Your task to perform on an android device: turn on improve location accuracy Image 0: 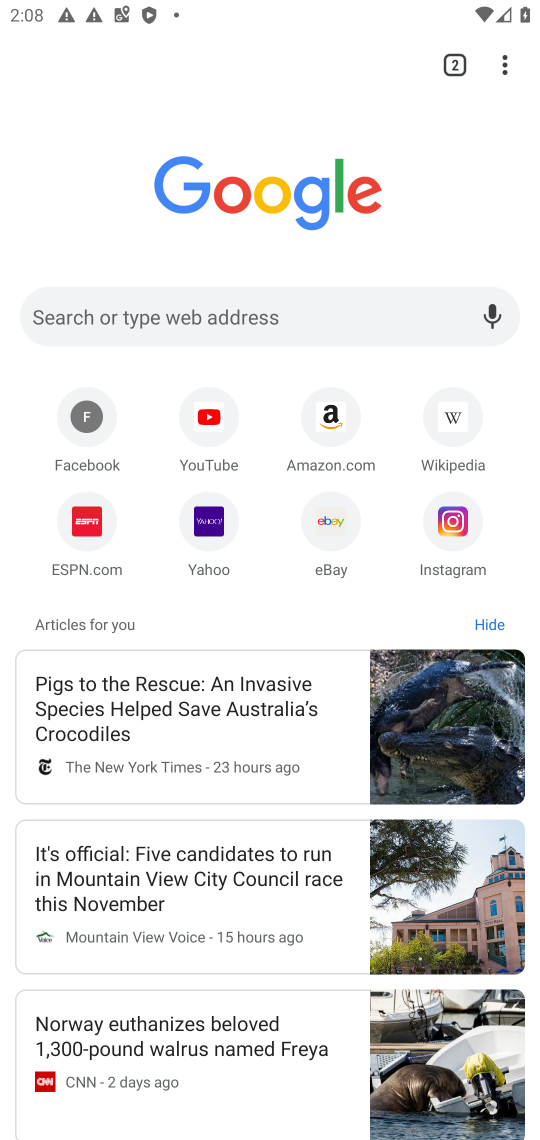
Step 0: press home button
Your task to perform on an android device: turn on improve location accuracy Image 1: 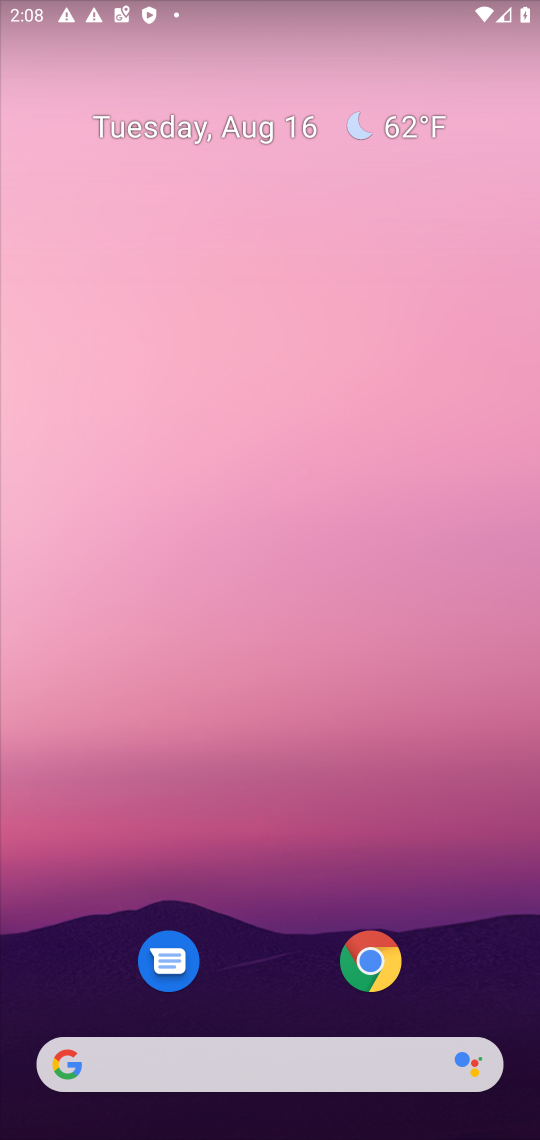
Step 1: drag from (497, 957) to (288, 139)
Your task to perform on an android device: turn on improve location accuracy Image 2: 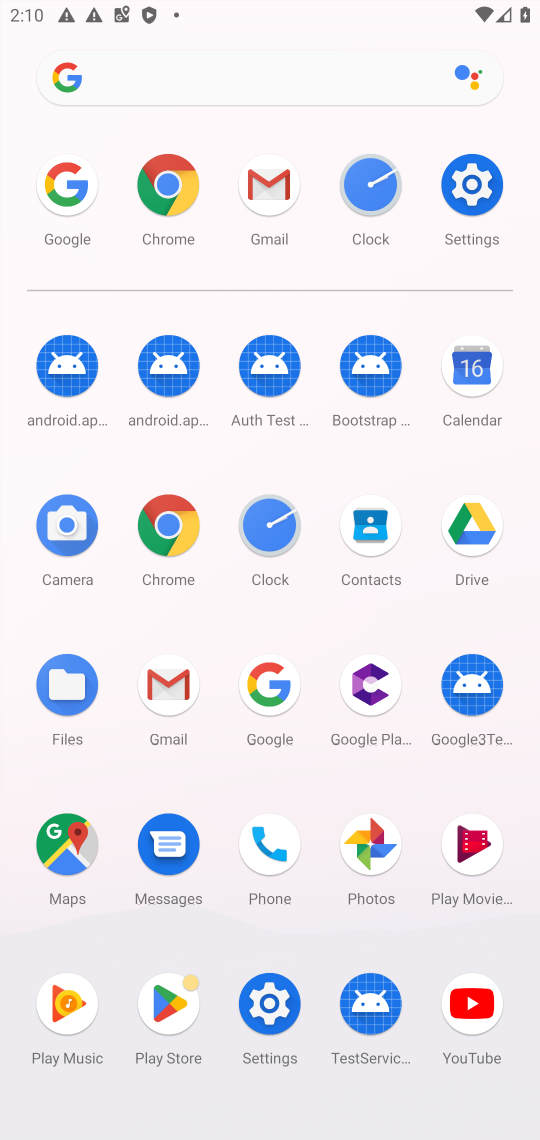
Step 2: click (256, 998)
Your task to perform on an android device: turn on improve location accuracy Image 3: 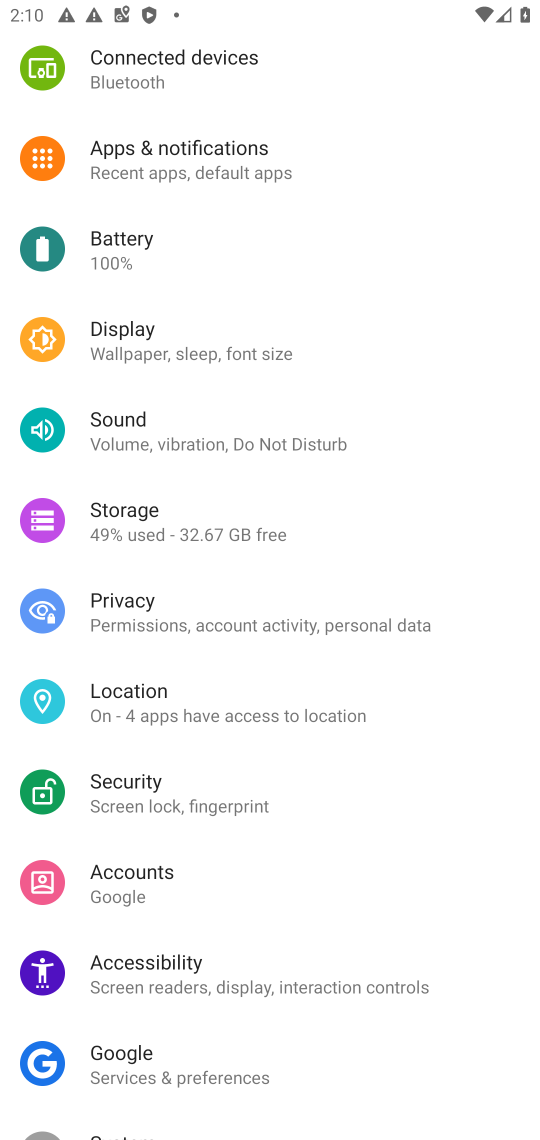
Step 3: click (154, 724)
Your task to perform on an android device: turn on improve location accuracy Image 4: 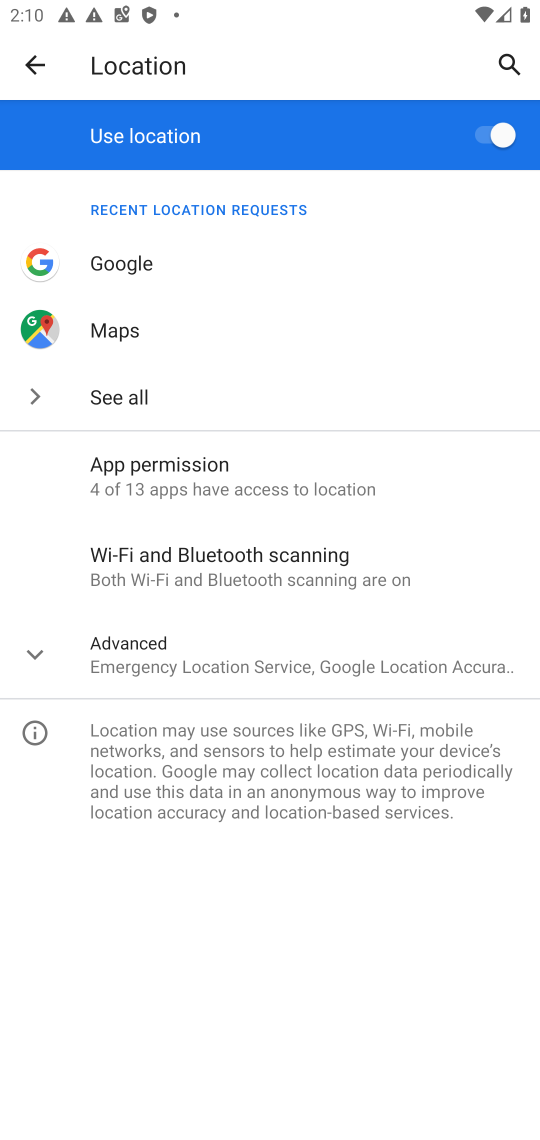
Step 4: click (194, 650)
Your task to perform on an android device: turn on improve location accuracy Image 5: 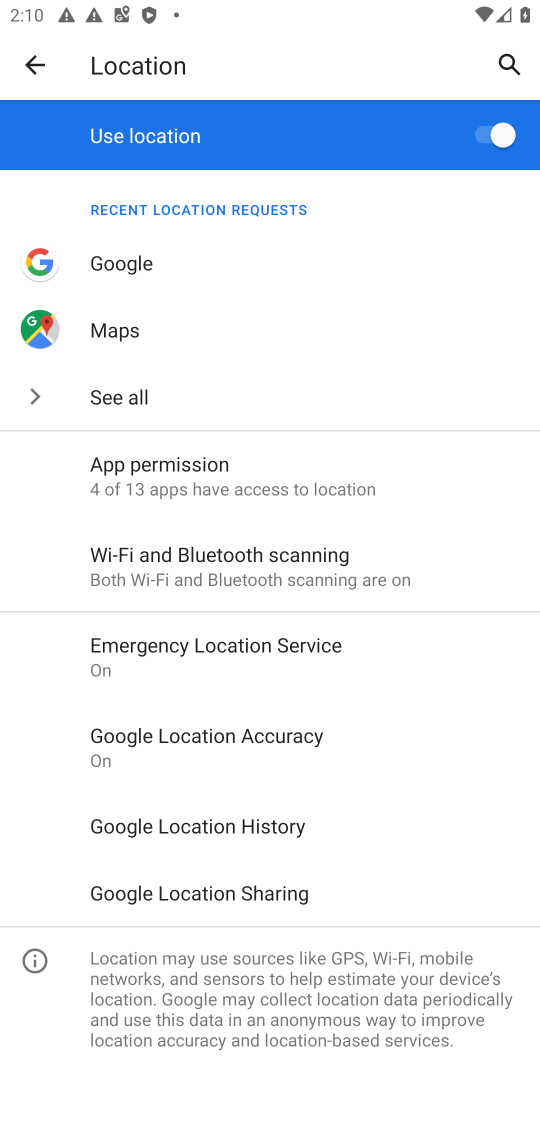
Step 5: click (205, 741)
Your task to perform on an android device: turn on improve location accuracy Image 6: 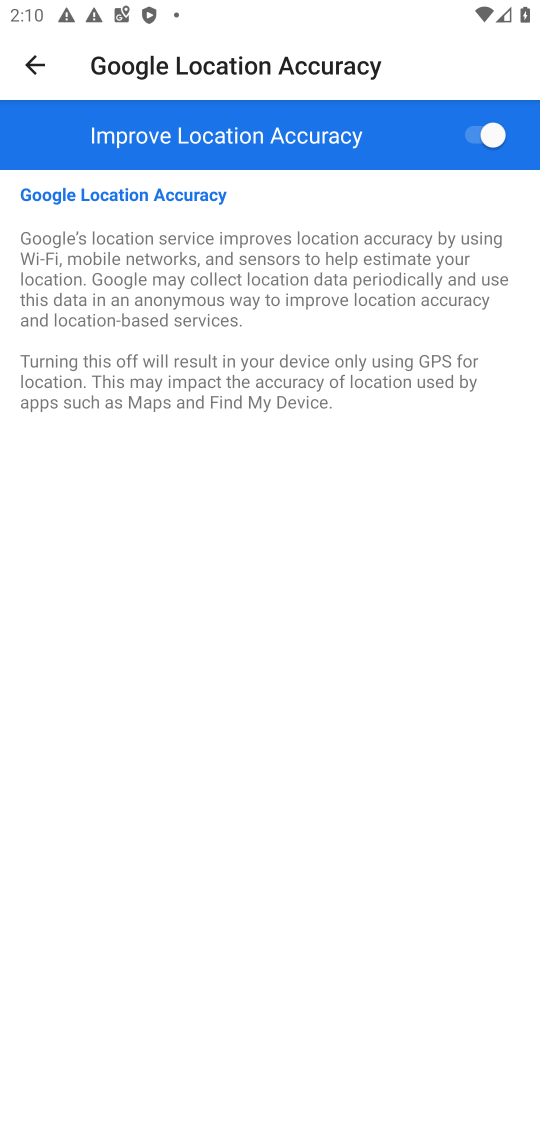
Step 6: task complete